Your task to perform on an android device: Go to privacy settings Image 0: 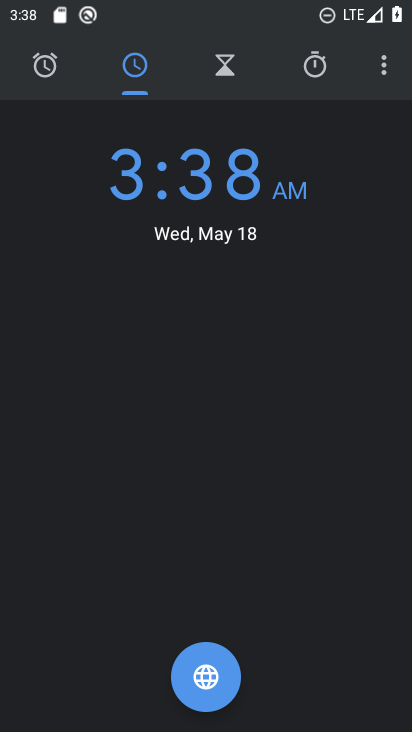
Step 0: press home button
Your task to perform on an android device: Go to privacy settings Image 1: 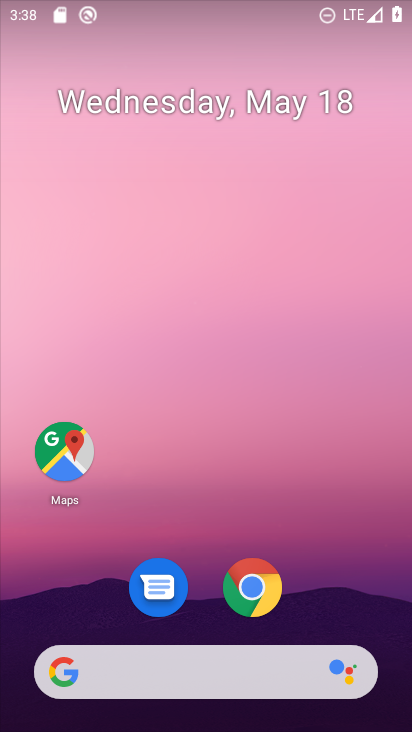
Step 1: drag from (191, 650) to (228, 175)
Your task to perform on an android device: Go to privacy settings Image 2: 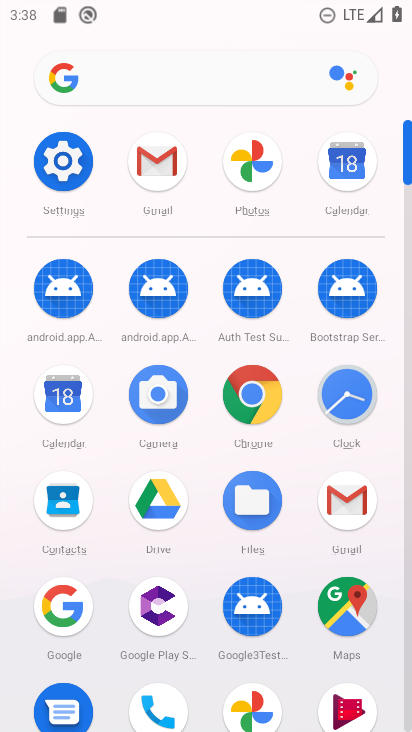
Step 2: click (45, 165)
Your task to perform on an android device: Go to privacy settings Image 3: 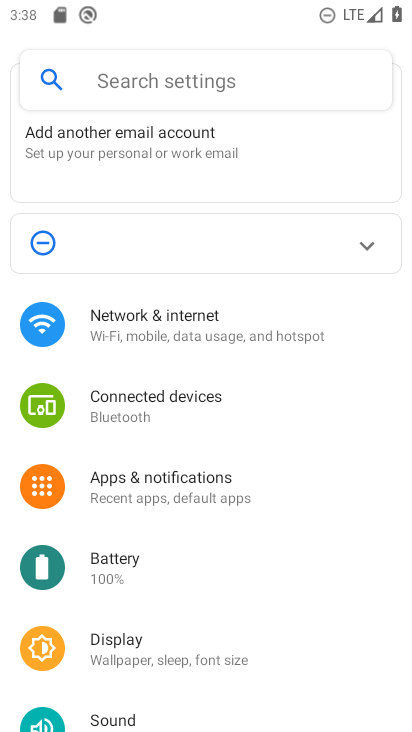
Step 3: drag from (196, 616) to (293, 60)
Your task to perform on an android device: Go to privacy settings Image 4: 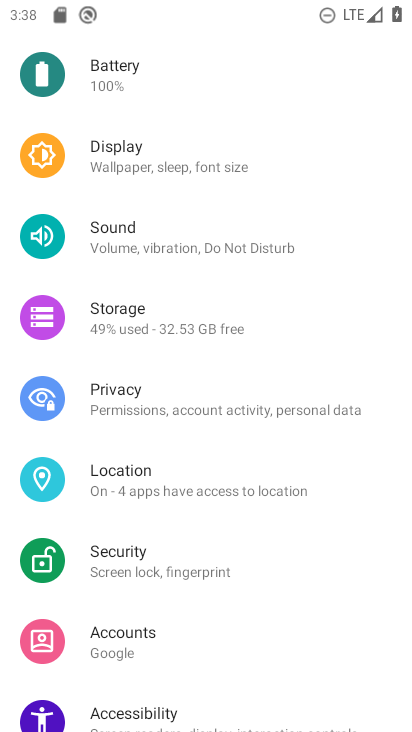
Step 4: click (127, 395)
Your task to perform on an android device: Go to privacy settings Image 5: 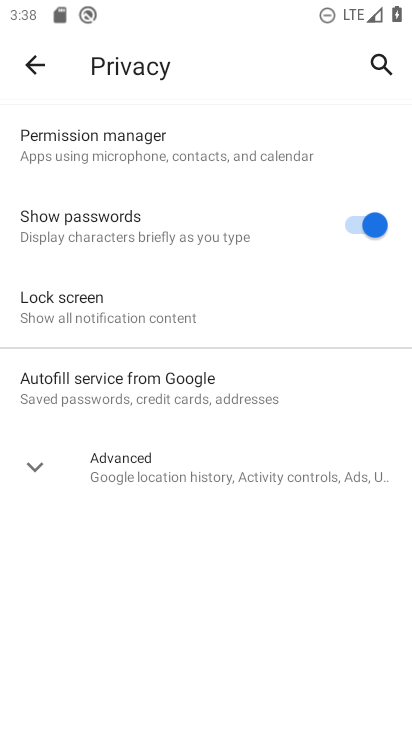
Step 5: task complete